Your task to perform on an android device: turn off data saver in the chrome app Image 0: 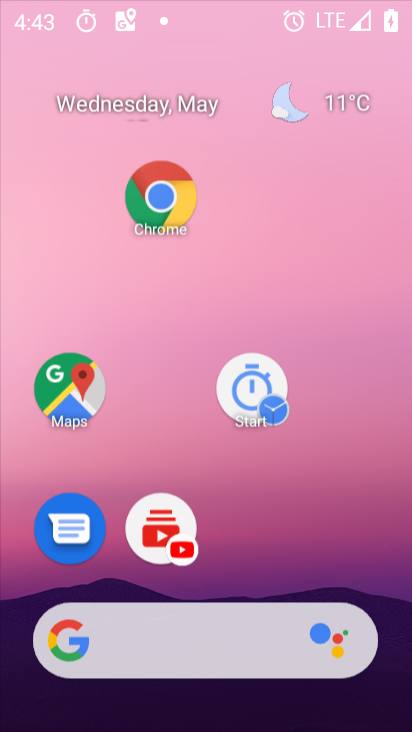
Step 0: drag from (198, 358) to (296, 668)
Your task to perform on an android device: turn off data saver in the chrome app Image 1: 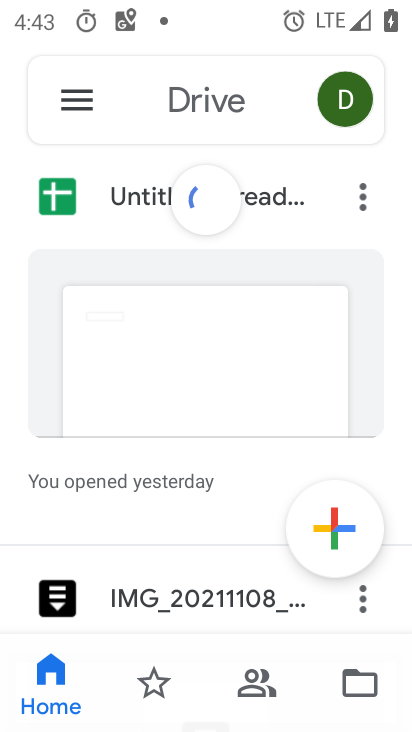
Step 1: press back button
Your task to perform on an android device: turn off data saver in the chrome app Image 2: 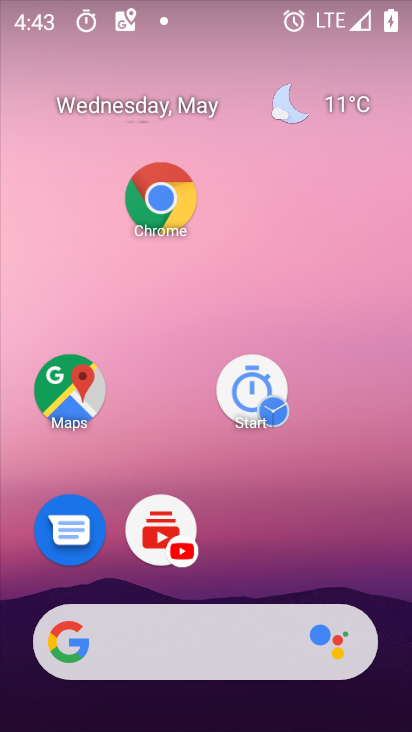
Step 2: drag from (4, 201) to (404, 424)
Your task to perform on an android device: turn off data saver in the chrome app Image 3: 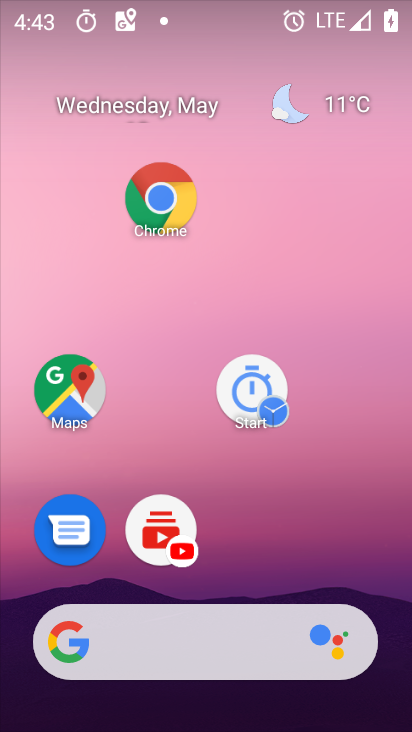
Step 3: drag from (57, 246) to (373, 455)
Your task to perform on an android device: turn off data saver in the chrome app Image 4: 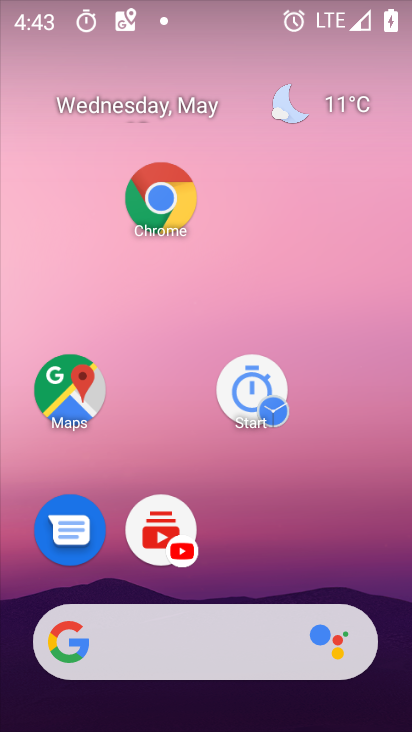
Step 4: drag from (8, 209) to (411, 426)
Your task to perform on an android device: turn off data saver in the chrome app Image 5: 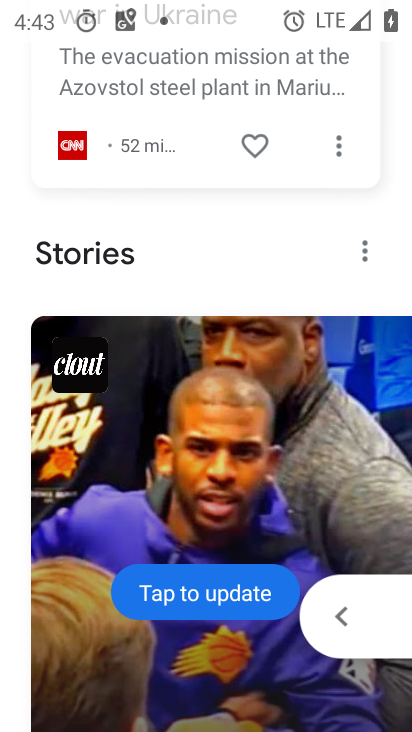
Step 5: drag from (138, 125) to (200, 503)
Your task to perform on an android device: turn off data saver in the chrome app Image 6: 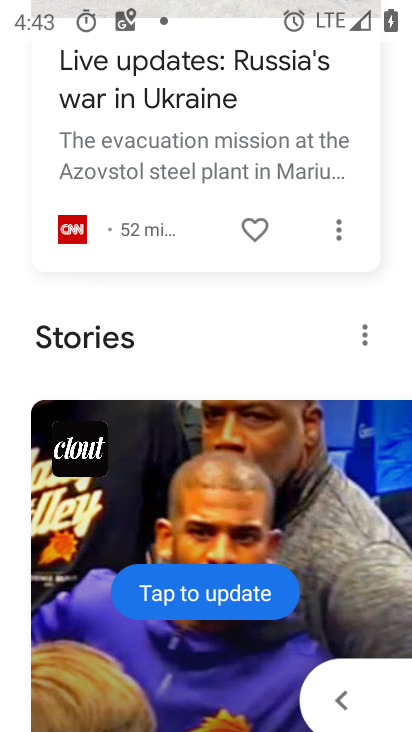
Step 6: drag from (214, 267) to (255, 492)
Your task to perform on an android device: turn off data saver in the chrome app Image 7: 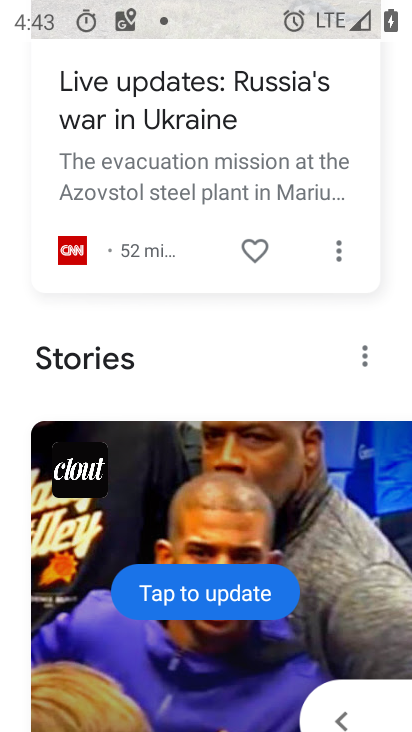
Step 7: drag from (164, 244) to (284, 715)
Your task to perform on an android device: turn off data saver in the chrome app Image 8: 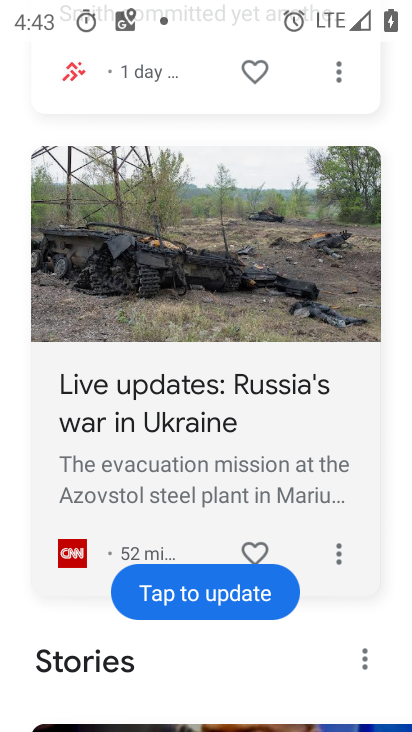
Step 8: drag from (181, 300) to (238, 649)
Your task to perform on an android device: turn off data saver in the chrome app Image 9: 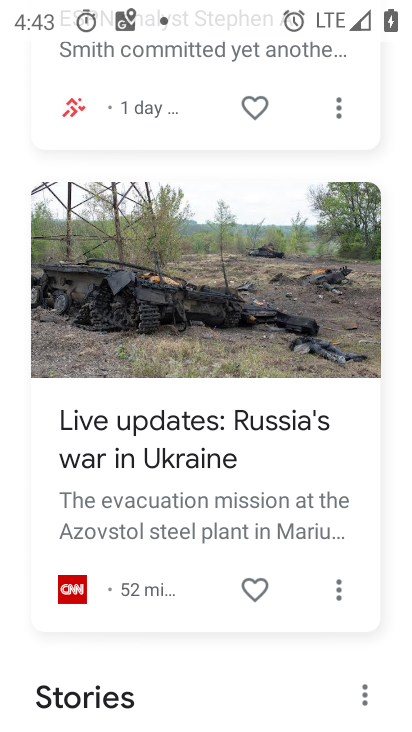
Step 9: drag from (343, 111) to (197, 381)
Your task to perform on an android device: turn off data saver in the chrome app Image 10: 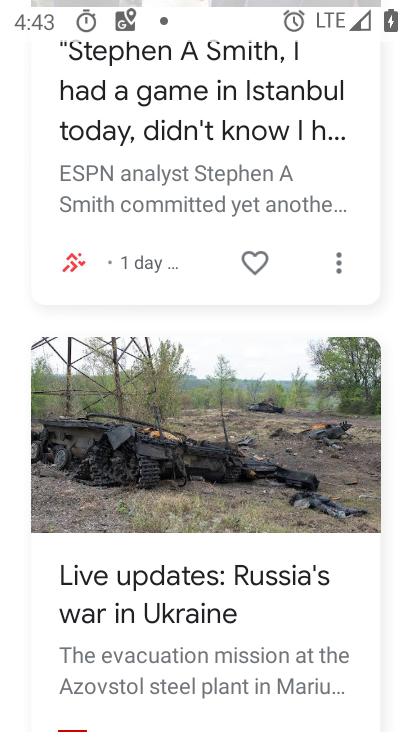
Step 10: press back button
Your task to perform on an android device: turn off data saver in the chrome app Image 11: 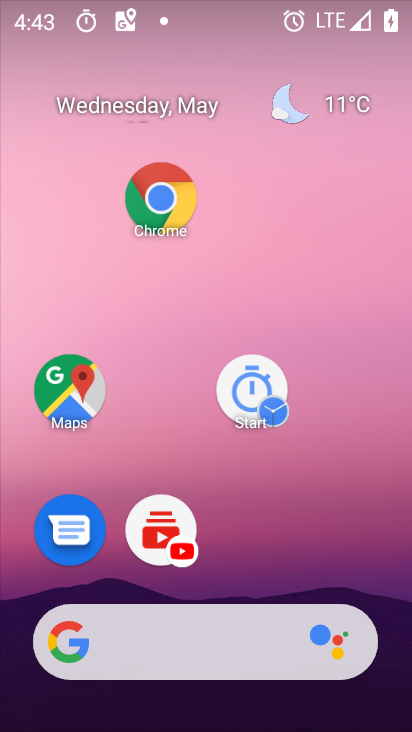
Step 11: drag from (281, 632) to (169, 198)
Your task to perform on an android device: turn off data saver in the chrome app Image 12: 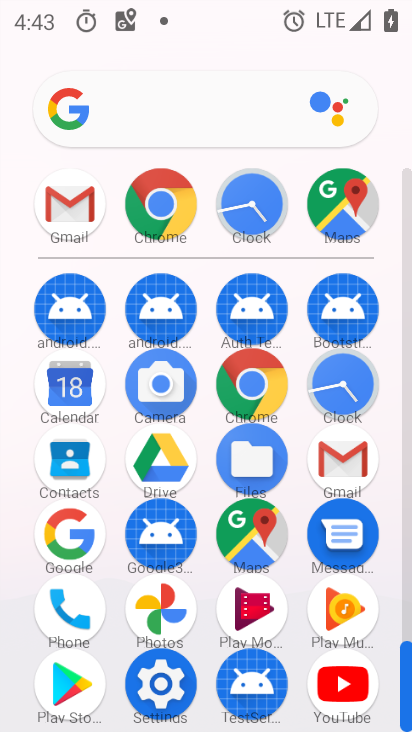
Step 12: click (161, 200)
Your task to perform on an android device: turn off data saver in the chrome app Image 13: 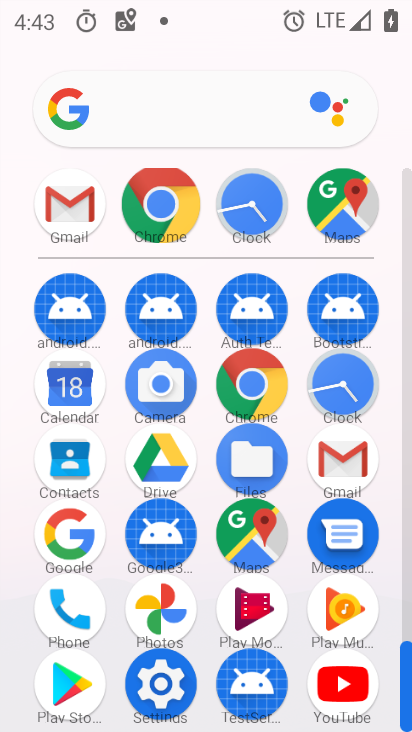
Step 13: click (162, 199)
Your task to perform on an android device: turn off data saver in the chrome app Image 14: 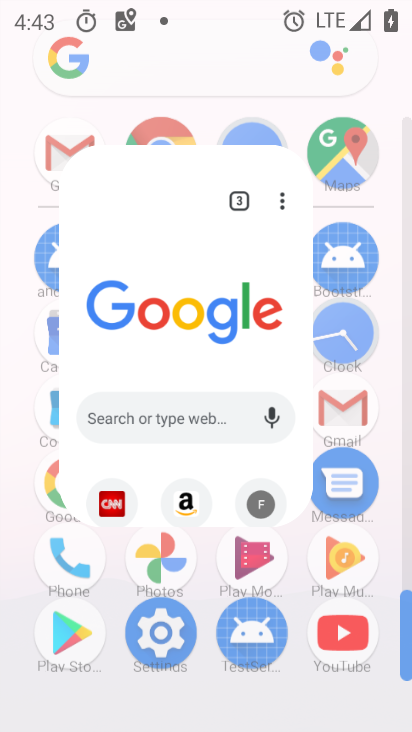
Step 14: click (166, 196)
Your task to perform on an android device: turn off data saver in the chrome app Image 15: 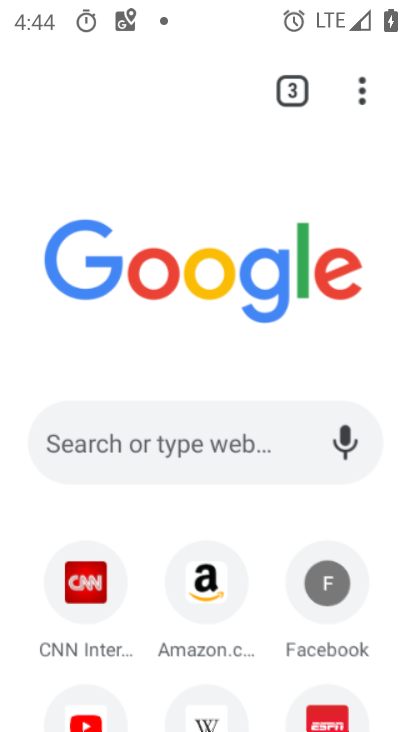
Step 15: drag from (362, 89) to (97, 564)
Your task to perform on an android device: turn off data saver in the chrome app Image 16: 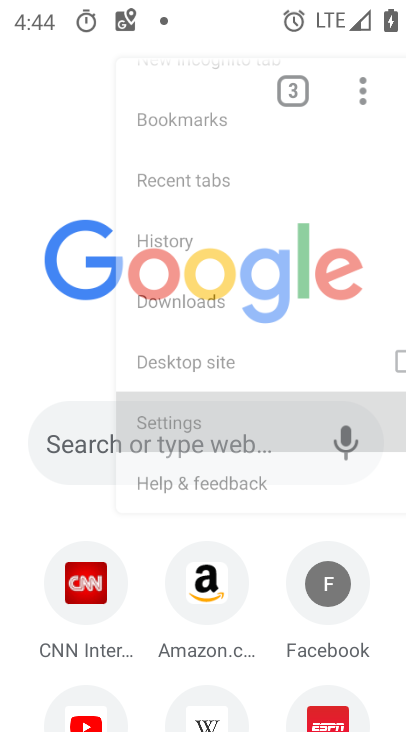
Step 16: click (97, 564)
Your task to perform on an android device: turn off data saver in the chrome app Image 17: 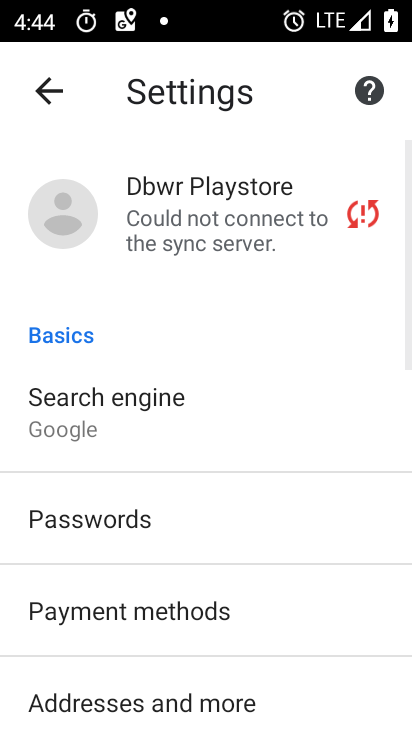
Step 17: drag from (169, 506) to (143, 184)
Your task to perform on an android device: turn off data saver in the chrome app Image 18: 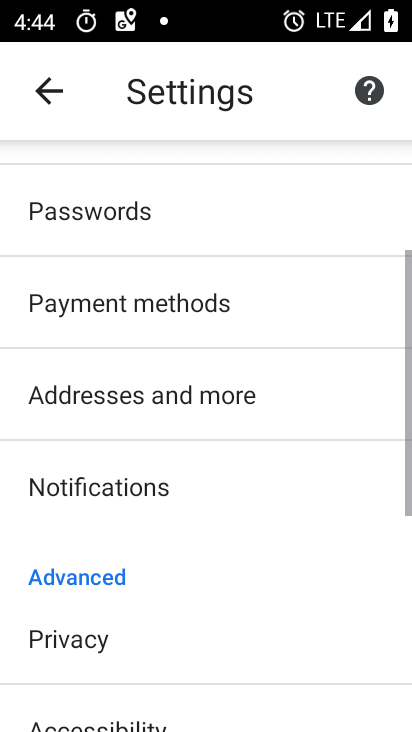
Step 18: drag from (219, 366) to (176, 22)
Your task to perform on an android device: turn off data saver in the chrome app Image 19: 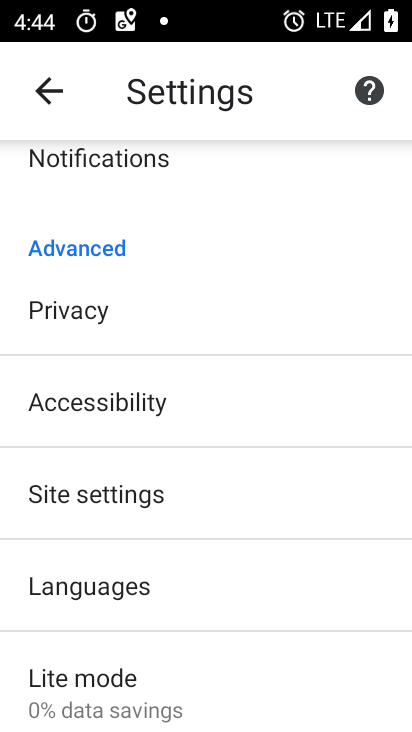
Step 19: click (84, 670)
Your task to perform on an android device: turn off data saver in the chrome app Image 20: 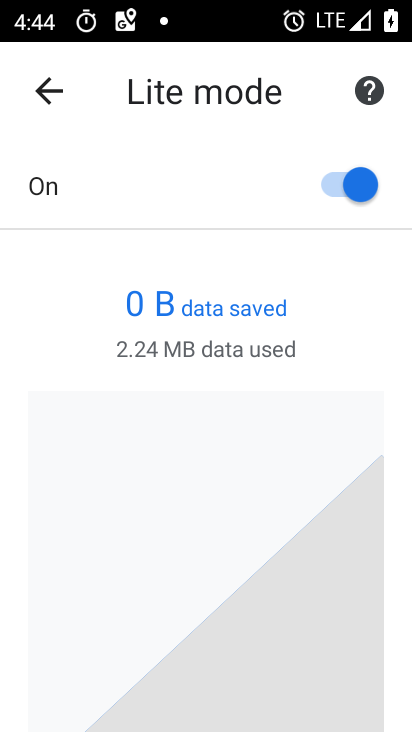
Step 20: click (369, 184)
Your task to perform on an android device: turn off data saver in the chrome app Image 21: 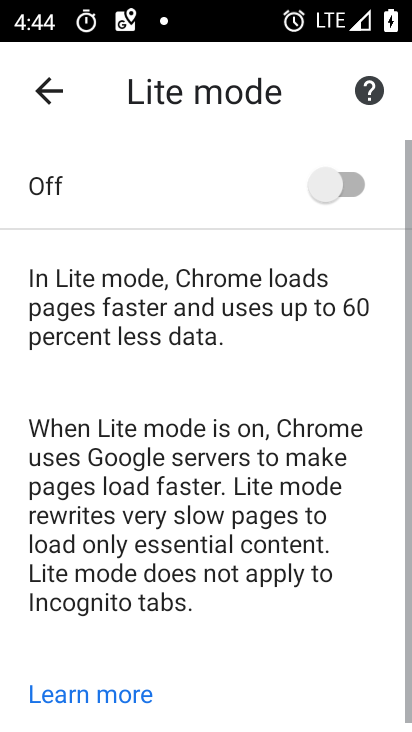
Step 21: task complete